Your task to perform on an android device: Play the last video I watched on Youtube Image 0: 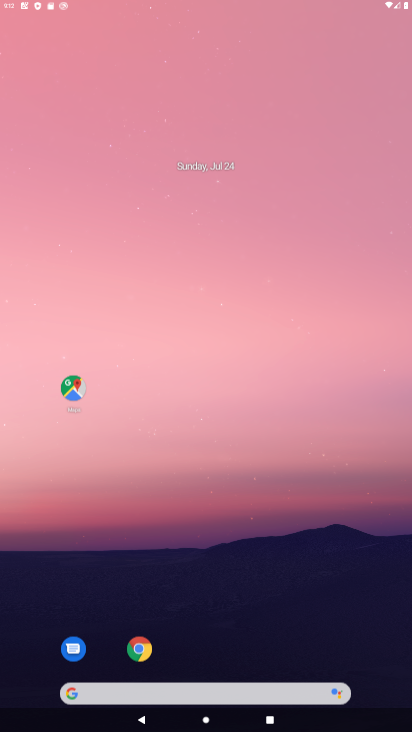
Step 0: press home button
Your task to perform on an android device: Play the last video I watched on Youtube Image 1: 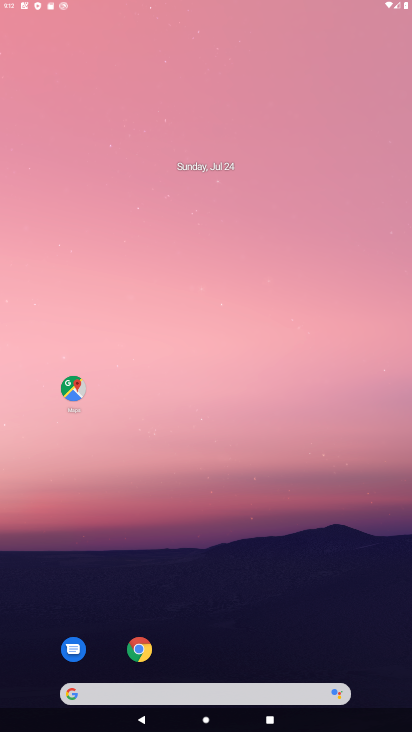
Step 1: drag from (334, 648) to (366, 246)
Your task to perform on an android device: Play the last video I watched on Youtube Image 2: 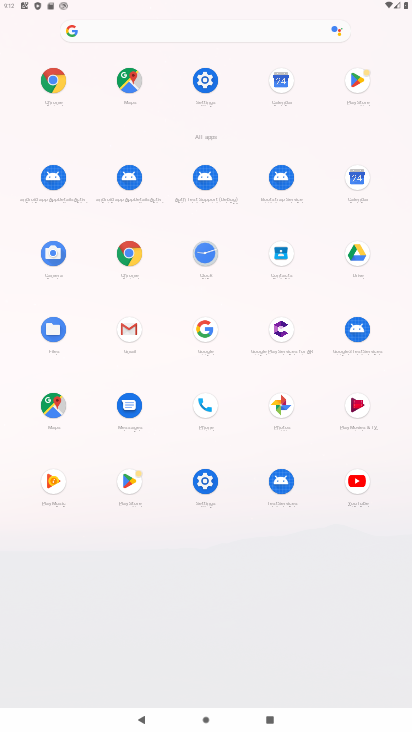
Step 2: click (354, 481)
Your task to perform on an android device: Play the last video I watched on Youtube Image 3: 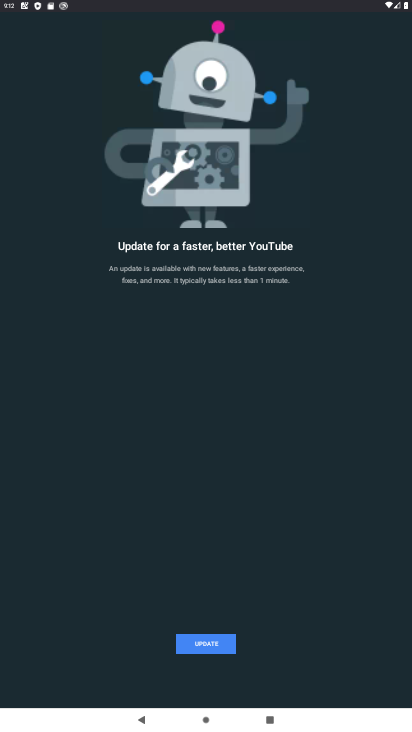
Step 3: click (210, 643)
Your task to perform on an android device: Play the last video I watched on Youtube Image 4: 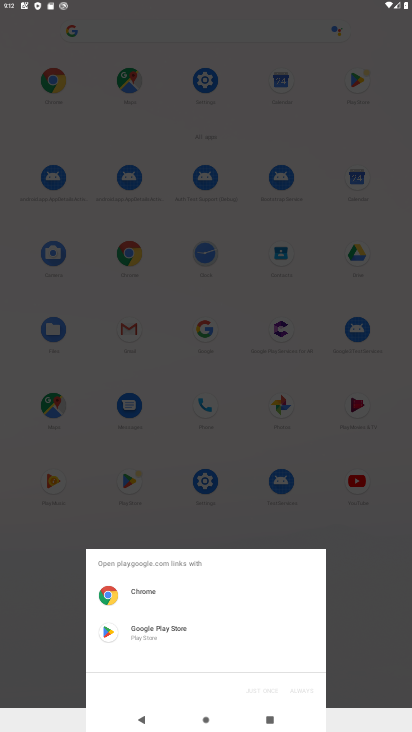
Step 4: click (147, 633)
Your task to perform on an android device: Play the last video I watched on Youtube Image 5: 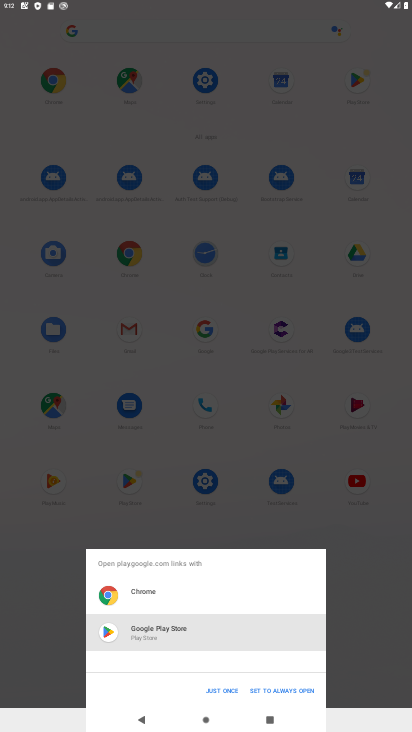
Step 5: click (222, 691)
Your task to perform on an android device: Play the last video I watched on Youtube Image 6: 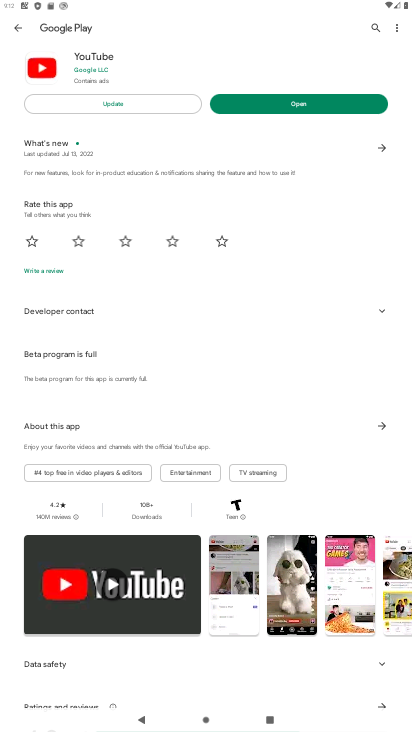
Step 6: click (134, 107)
Your task to perform on an android device: Play the last video I watched on Youtube Image 7: 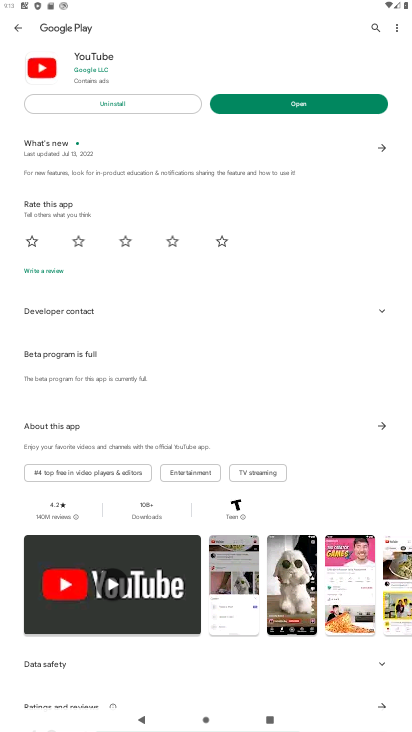
Step 7: click (287, 99)
Your task to perform on an android device: Play the last video I watched on Youtube Image 8: 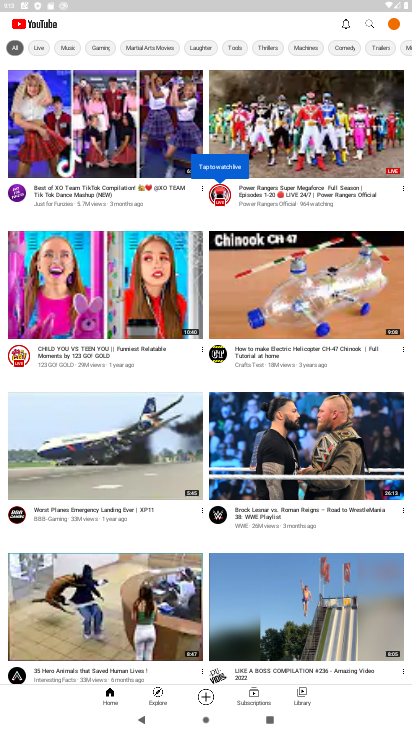
Step 8: click (305, 689)
Your task to perform on an android device: Play the last video I watched on Youtube Image 9: 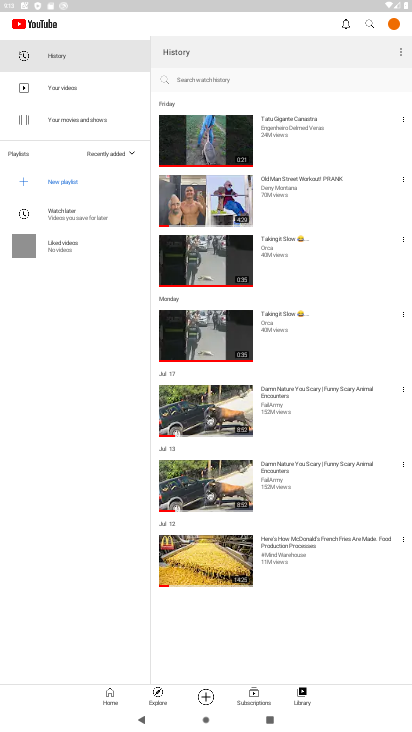
Step 9: click (215, 127)
Your task to perform on an android device: Play the last video I watched on Youtube Image 10: 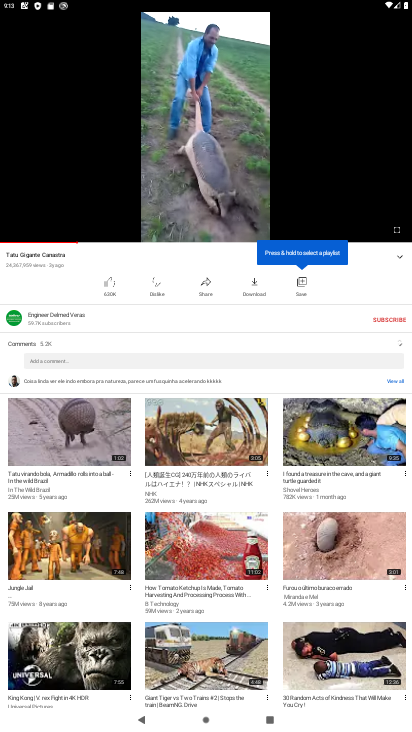
Step 10: task complete